Your task to perform on an android device: Go to Android settings Image 0: 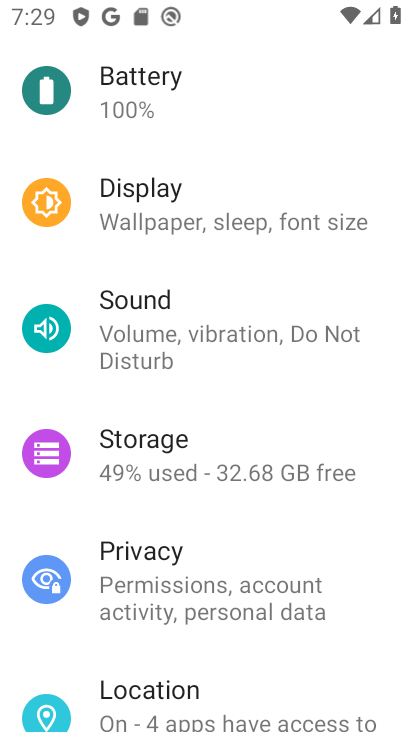
Step 0: press home button
Your task to perform on an android device: Go to Android settings Image 1: 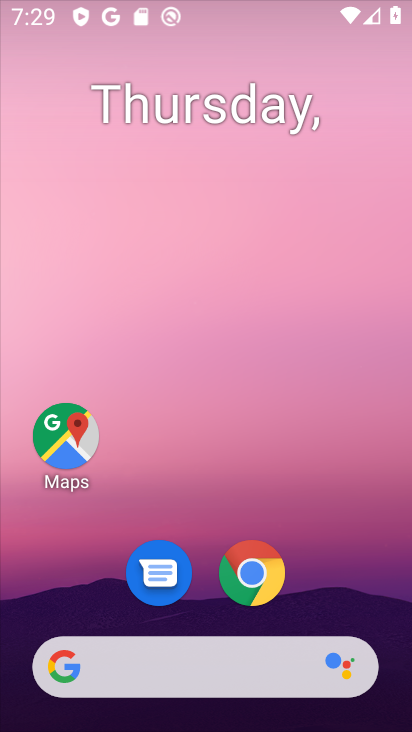
Step 1: drag from (324, 609) to (348, 140)
Your task to perform on an android device: Go to Android settings Image 2: 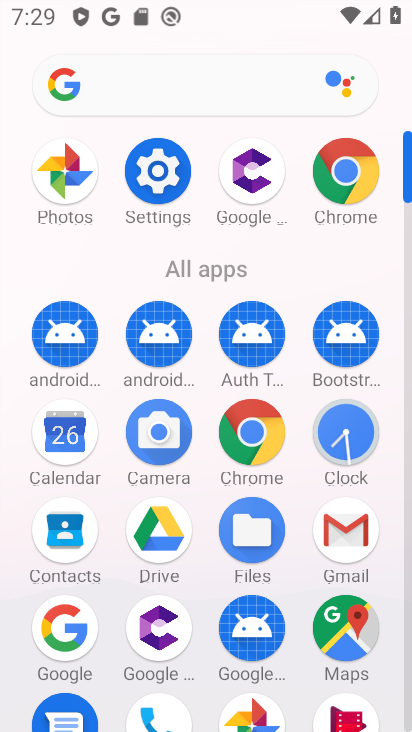
Step 2: click (164, 188)
Your task to perform on an android device: Go to Android settings Image 3: 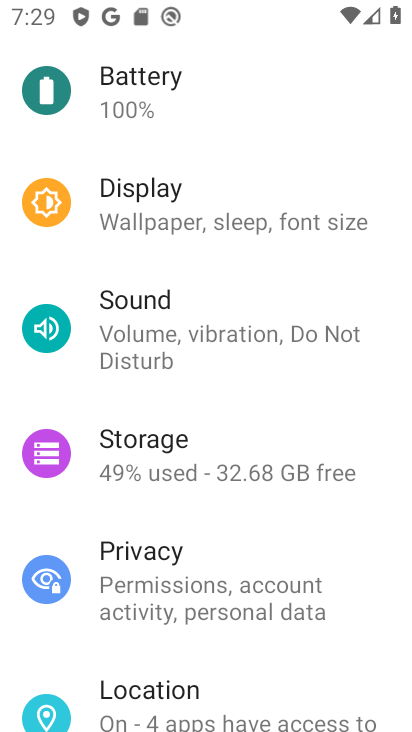
Step 3: drag from (195, 603) to (205, 287)
Your task to perform on an android device: Go to Android settings Image 4: 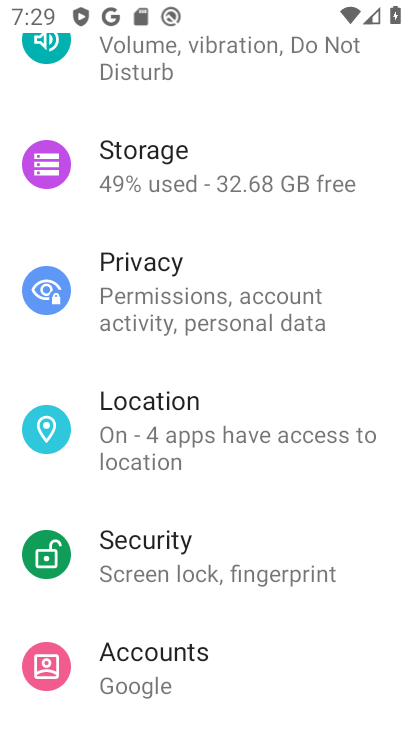
Step 4: drag from (203, 603) to (256, 282)
Your task to perform on an android device: Go to Android settings Image 5: 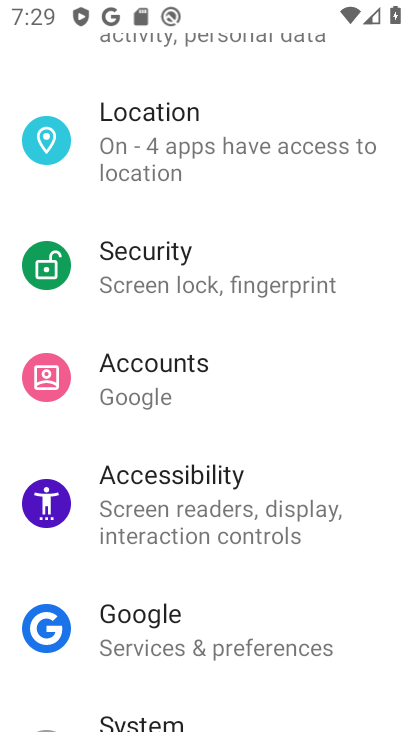
Step 5: drag from (217, 616) to (239, 320)
Your task to perform on an android device: Go to Android settings Image 6: 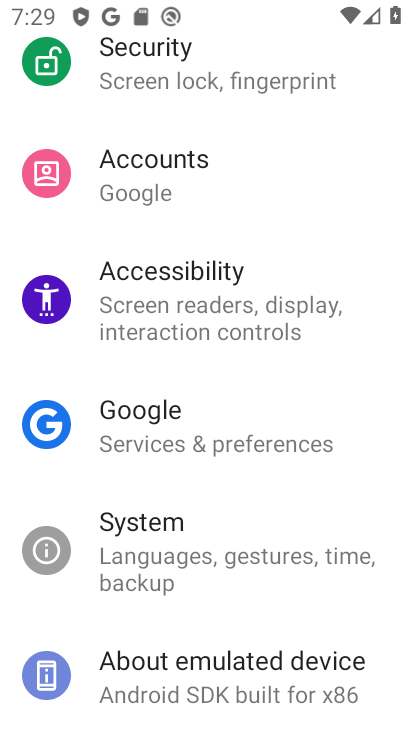
Step 6: drag from (217, 661) to (296, 354)
Your task to perform on an android device: Go to Android settings Image 7: 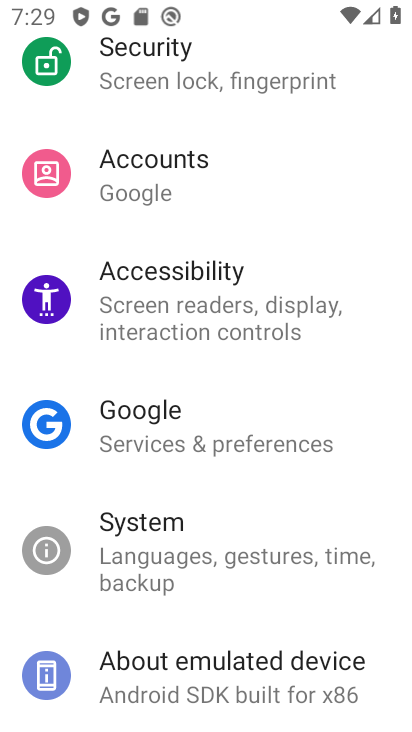
Step 7: click (256, 667)
Your task to perform on an android device: Go to Android settings Image 8: 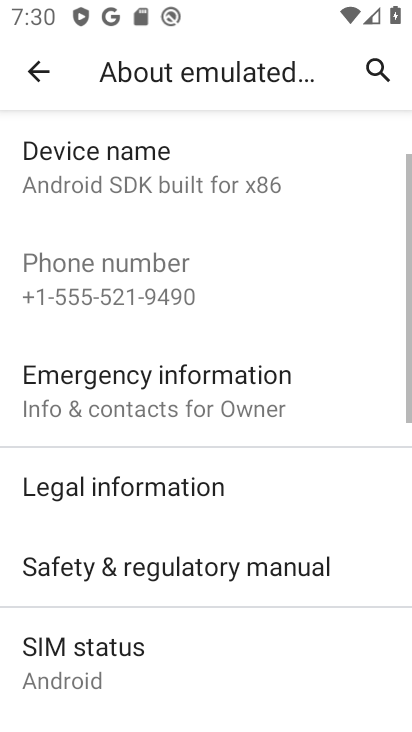
Step 8: drag from (184, 661) to (253, 294)
Your task to perform on an android device: Go to Android settings Image 9: 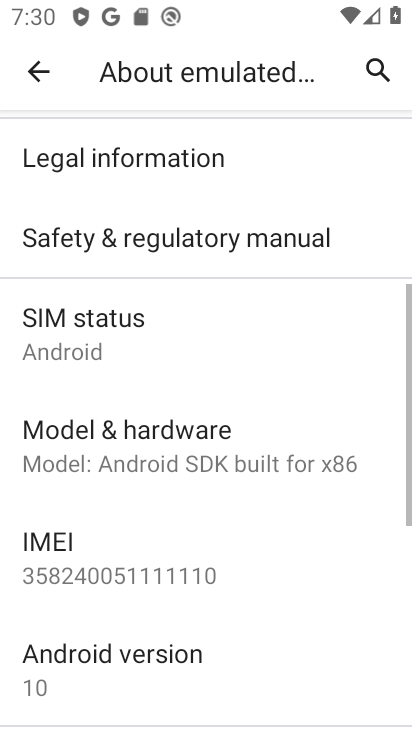
Step 9: click (123, 316)
Your task to perform on an android device: Go to Android settings Image 10: 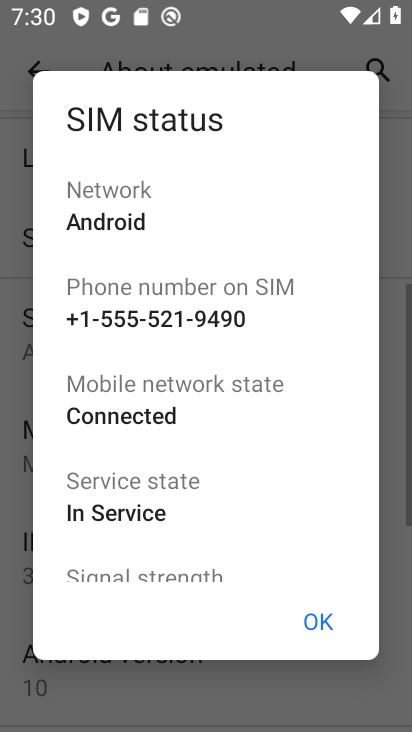
Step 10: click (297, 628)
Your task to perform on an android device: Go to Android settings Image 11: 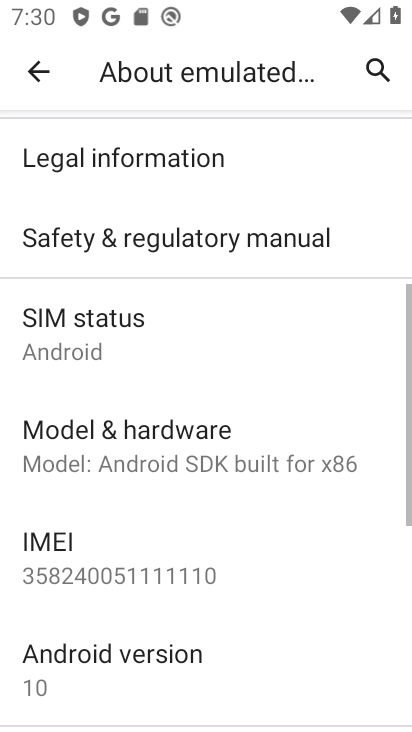
Step 11: click (136, 685)
Your task to perform on an android device: Go to Android settings Image 12: 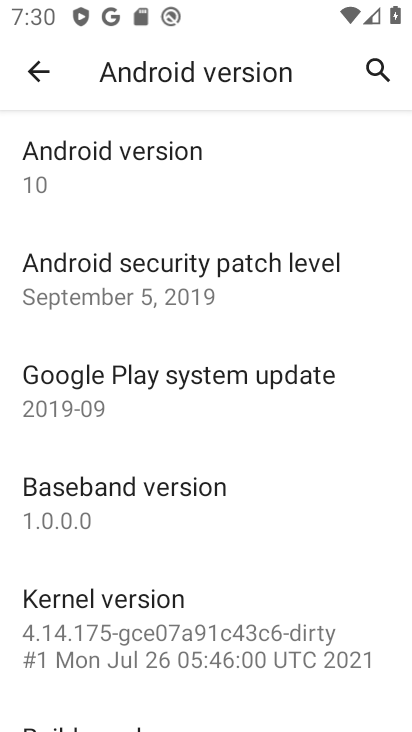
Step 12: task complete